Your task to perform on an android device: uninstall "Expedia: Hotels, Flights & Car" Image 0: 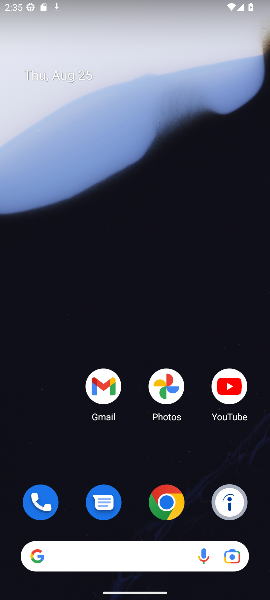
Step 0: drag from (137, 455) to (134, 0)
Your task to perform on an android device: uninstall "Expedia: Hotels, Flights & Car" Image 1: 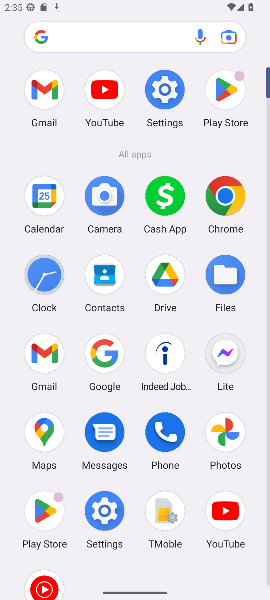
Step 1: click (218, 85)
Your task to perform on an android device: uninstall "Expedia: Hotels, Flights & Car" Image 2: 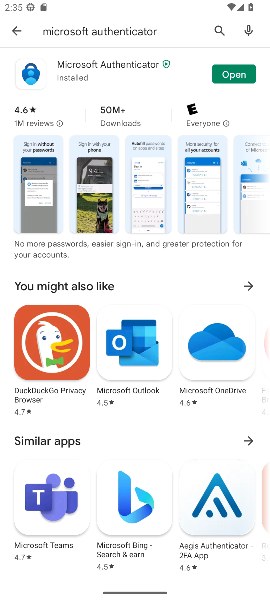
Step 2: click (213, 23)
Your task to perform on an android device: uninstall "Expedia: Hotels, Flights & Car" Image 3: 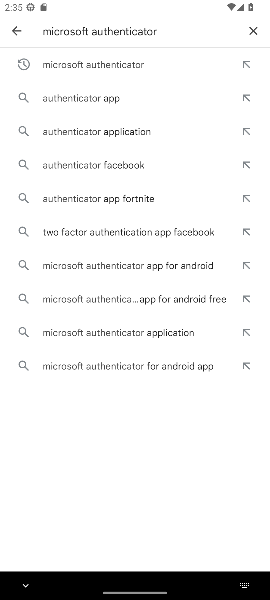
Step 3: click (252, 35)
Your task to perform on an android device: uninstall "Expedia: Hotels, Flights & Car" Image 4: 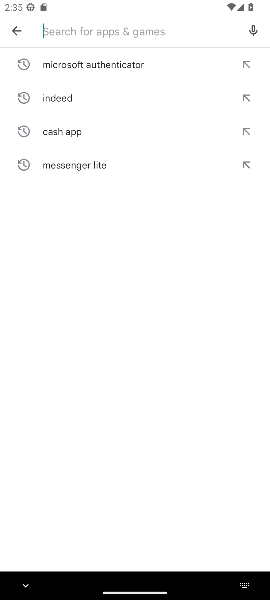
Step 4: type "expedia"
Your task to perform on an android device: uninstall "Expedia: Hotels, Flights & Car" Image 5: 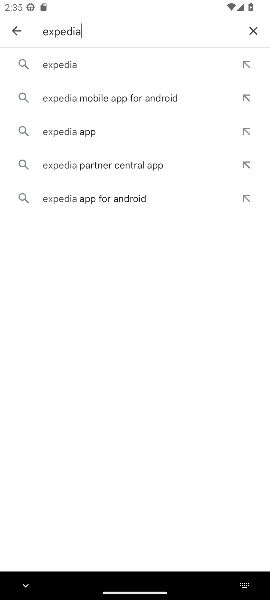
Step 5: click (170, 74)
Your task to perform on an android device: uninstall "Expedia: Hotels, Flights & Car" Image 6: 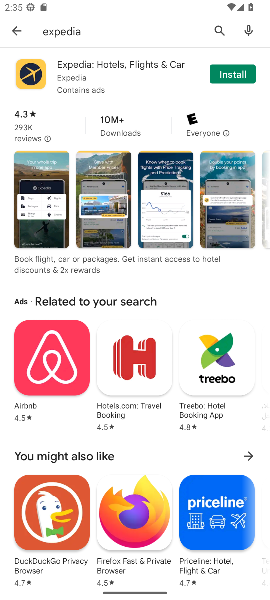
Step 6: click (240, 69)
Your task to perform on an android device: uninstall "Expedia: Hotels, Flights & Car" Image 7: 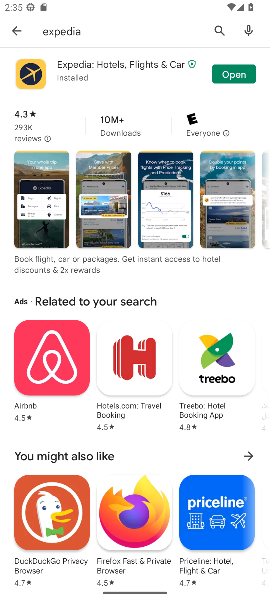
Step 7: click (240, 69)
Your task to perform on an android device: uninstall "Expedia: Hotels, Flights & Car" Image 8: 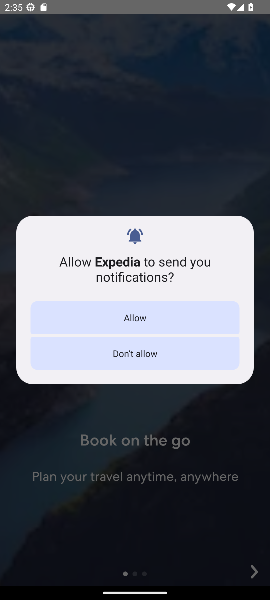
Step 8: task complete